Your task to perform on an android device: open app "WhatsApp Messenger" (install if not already installed) Image 0: 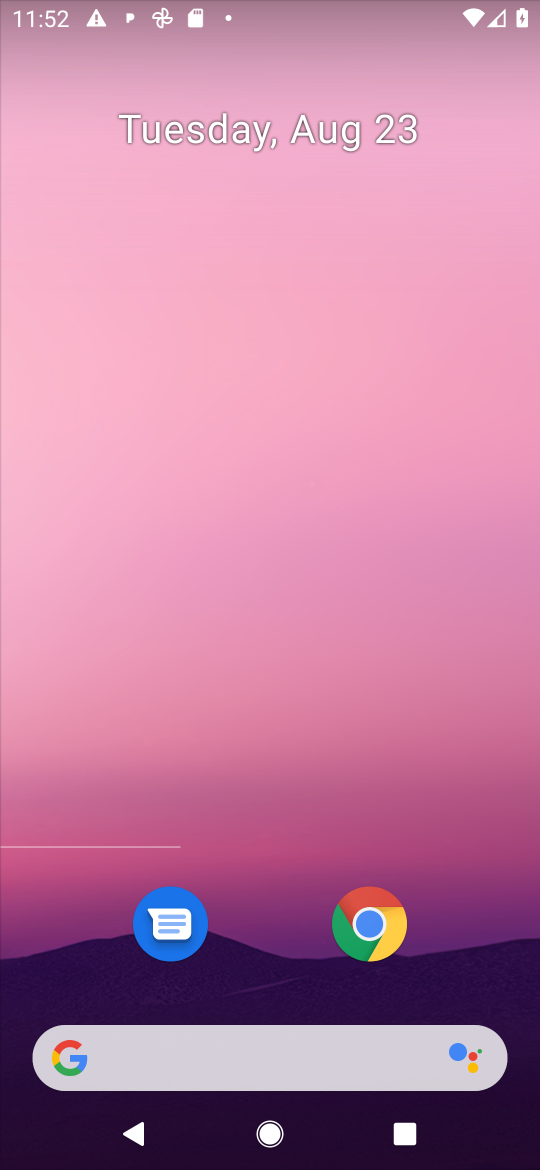
Step 0: press home button
Your task to perform on an android device: open app "WhatsApp Messenger" (install if not already installed) Image 1: 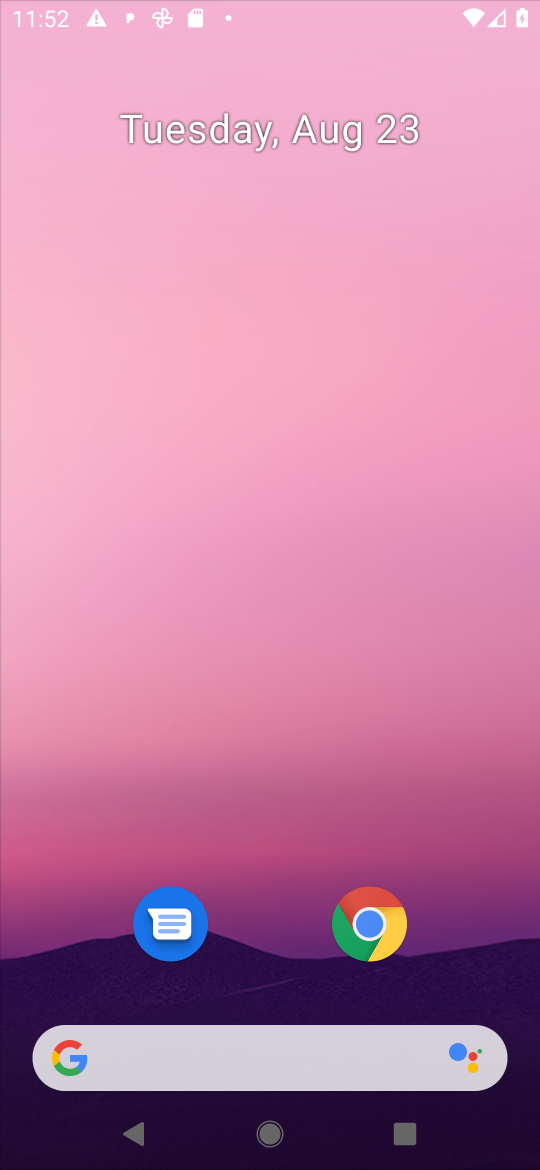
Step 1: drag from (452, 956) to (456, 158)
Your task to perform on an android device: open app "WhatsApp Messenger" (install if not already installed) Image 2: 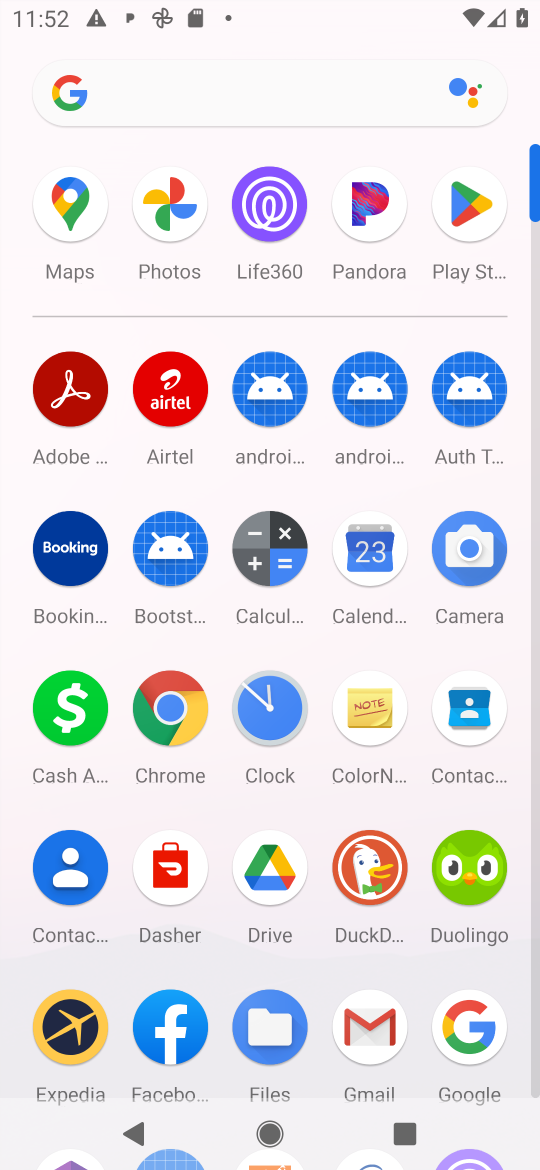
Step 2: click (467, 208)
Your task to perform on an android device: open app "WhatsApp Messenger" (install if not already installed) Image 3: 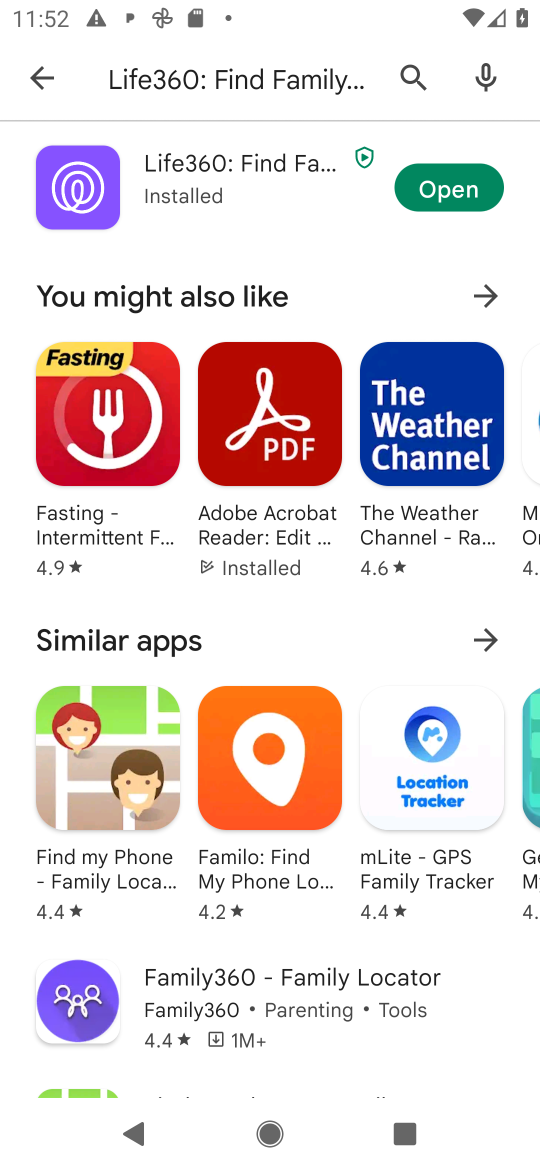
Step 3: press back button
Your task to perform on an android device: open app "WhatsApp Messenger" (install if not already installed) Image 4: 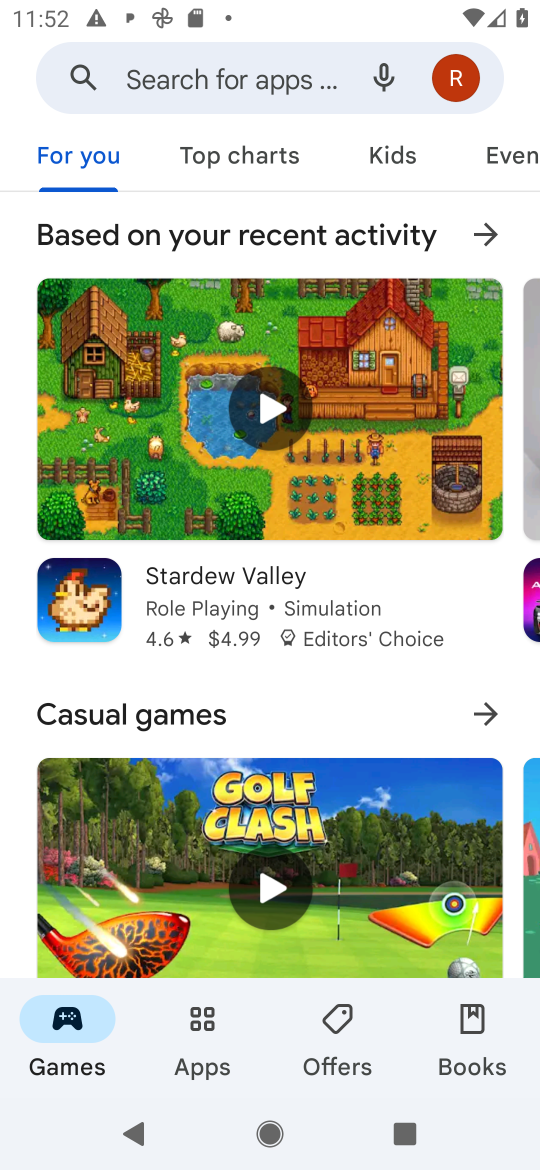
Step 4: click (244, 79)
Your task to perform on an android device: open app "WhatsApp Messenger" (install if not already installed) Image 5: 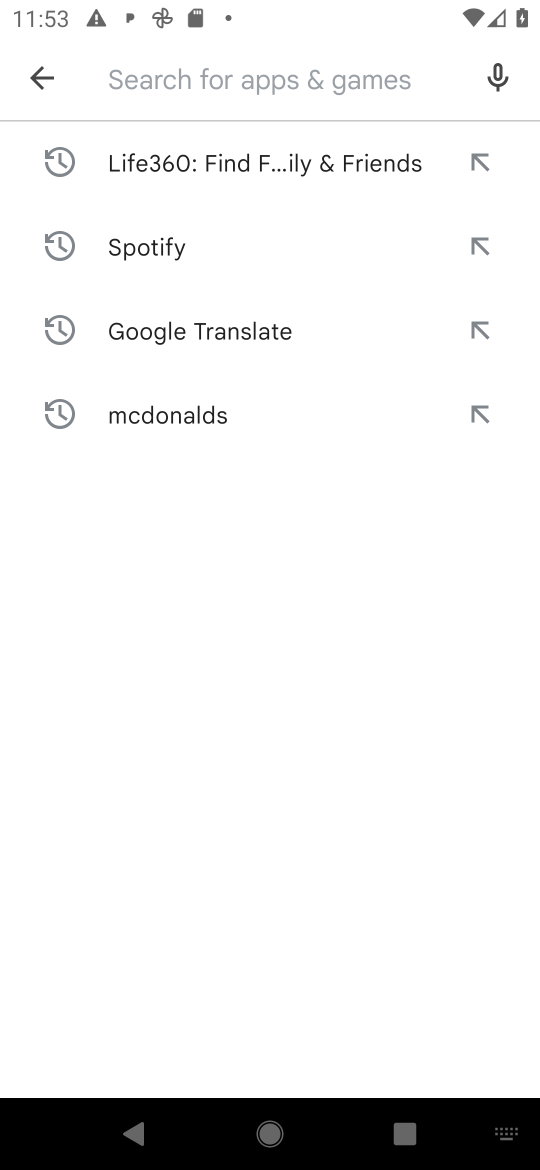
Step 5: type "WhatsApp Messenger"
Your task to perform on an android device: open app "WhatsApp Messenger" (install if not already installed) Image 6: 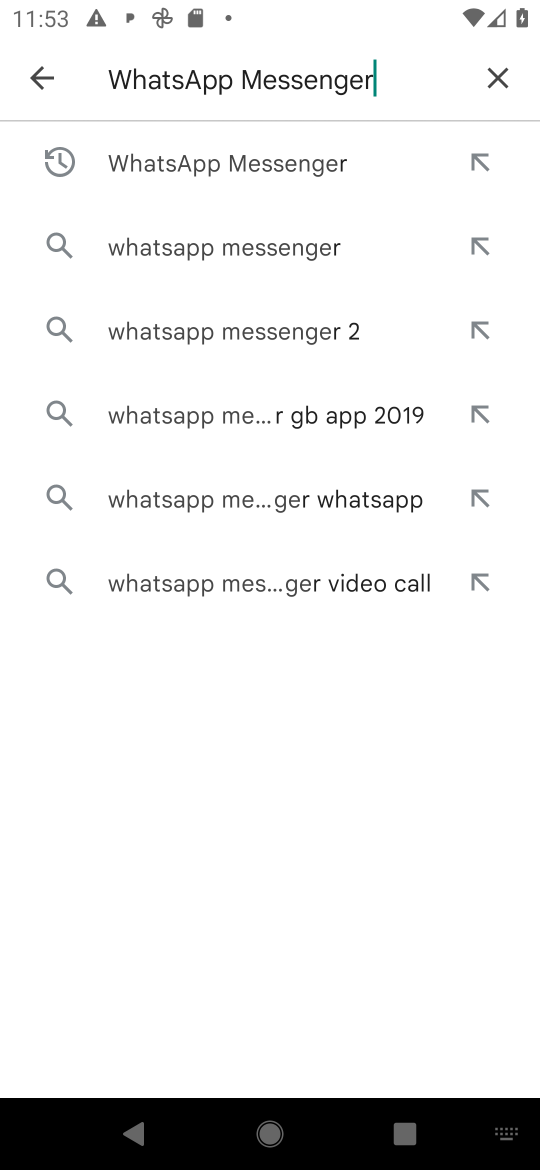
Step 6: press enter
Your task to perform on an android device: open app "WhatsApp Messenger" (install if not already installed) Image 7: 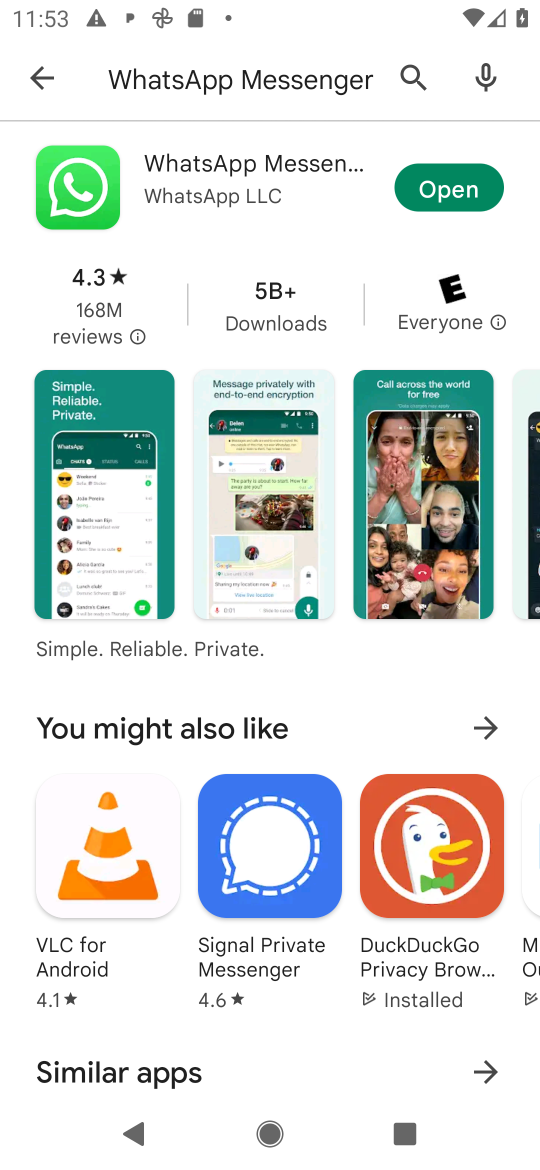
Step 7: click (461, 192)
Your task to perform on an android device: open app "WhatsApp Messenger" (install if not already installed) Image 8: 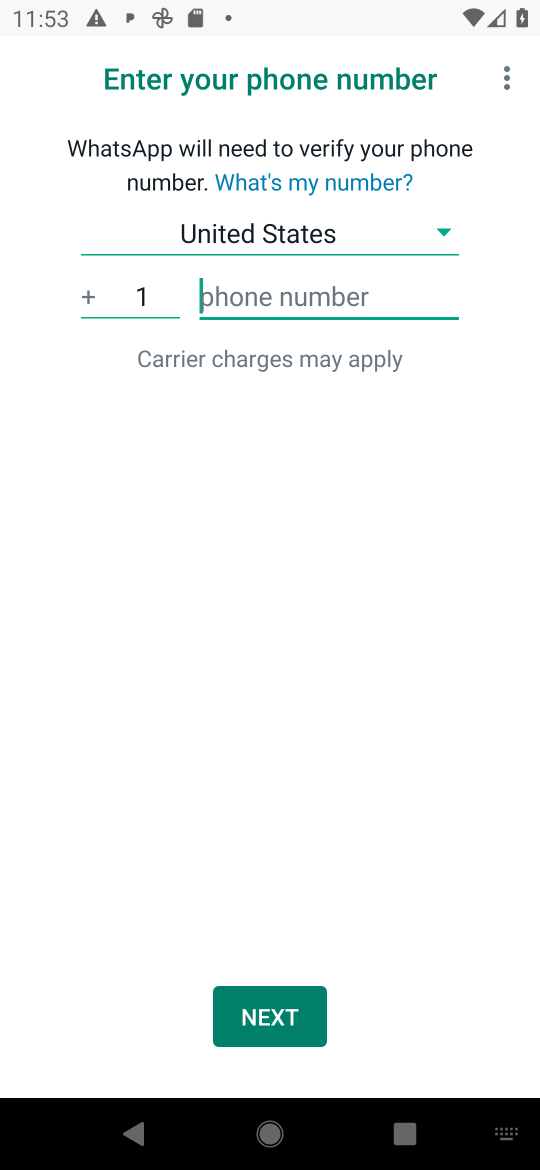
Step 8: task complete